Your task to perform on an android device: move a message to another label in the gmail app Image 0: 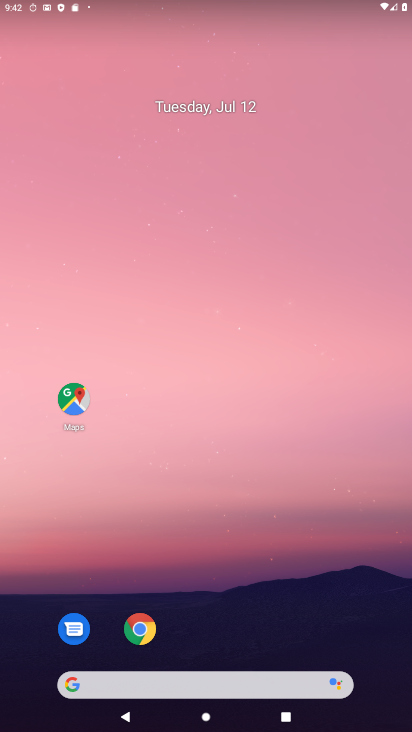
Step 0: drag from (215, 609) to (235, 142)
Your task to perform on an android device: move a message to another label in the gmail app Image 1: 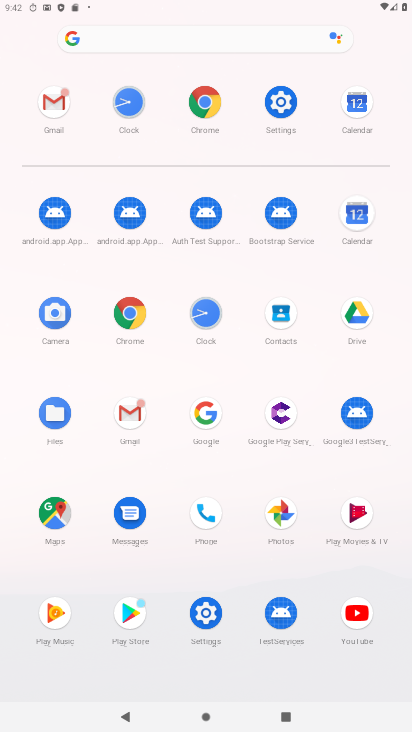
Step 1: click (112, 397)
Your task to perform on an android device: move a message to another label in the gmail app Image 2: 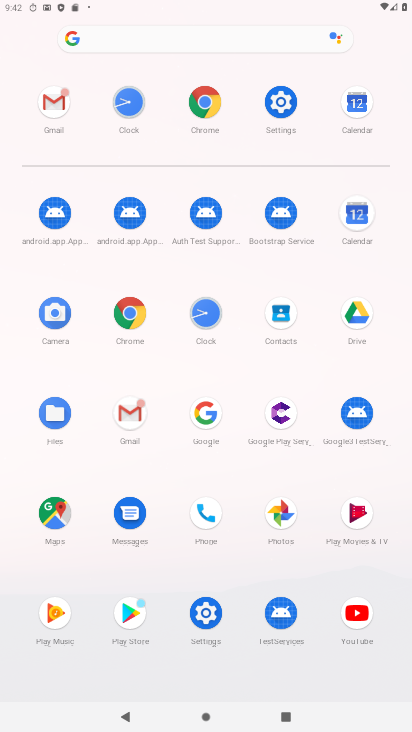
Step 2: click (126, 407)
Your task to perform on an android device: move a message to another label in the gmail app Image 3: 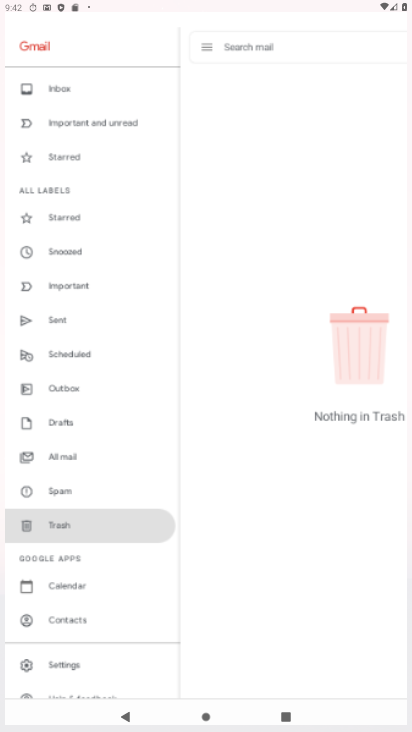
Step 3: click (127, 409)
Your task to perform on an android device: move a message to another label in the gmail app Image 4: 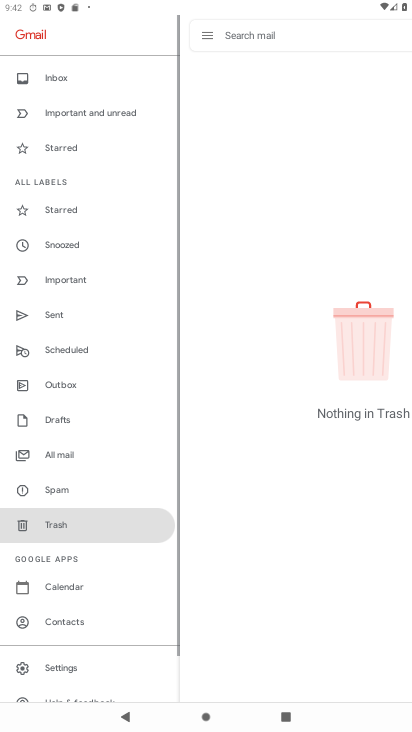
Step 4: click (127, 409)
Your task to perform on an android device: move a message to another label in the gmail app Image 5: 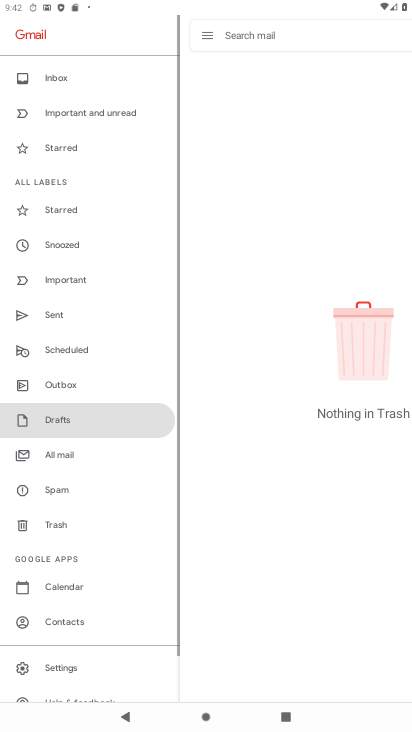
Step 5: click (127, 409)
Your task to perform on an android device: move a message to another label in the gmail app Image 6: 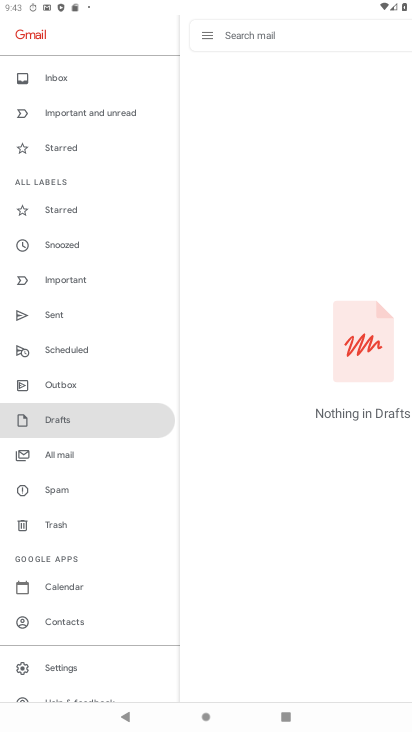
Step 6: click (56, 450)
Your task to perform on an android device: move a message to another label in the gmail app Image 7: 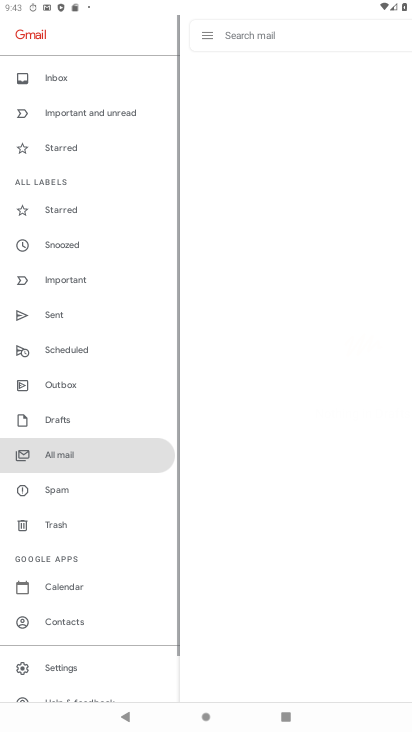
Step 7: click (56, 450)
Your task to perform on an android device: move a message to another label in the gmail app Image 8: 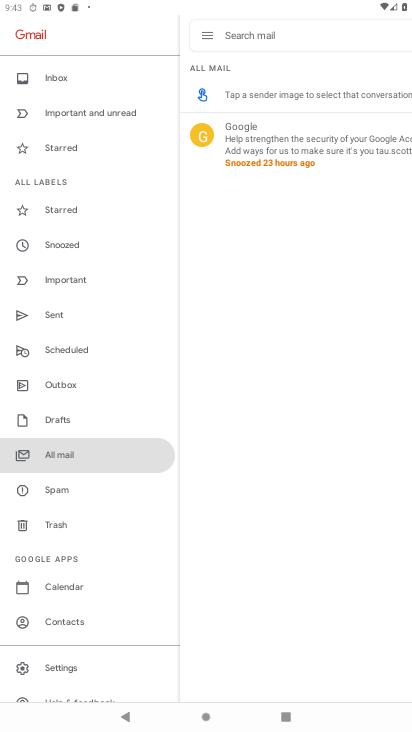
Step 8: click (267, 150)
Your task to perform on an android device: move a message to another label in the gmail app Image 9: 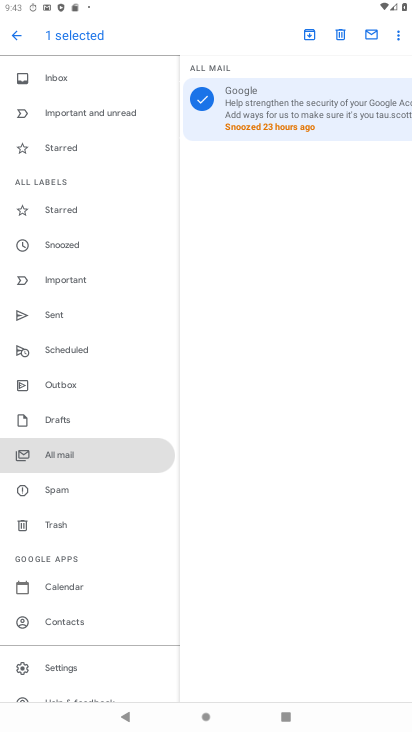
Step 9: click (393, 35)
Your task to perform on an android device: move a message to another label in the gmail app Image 10: 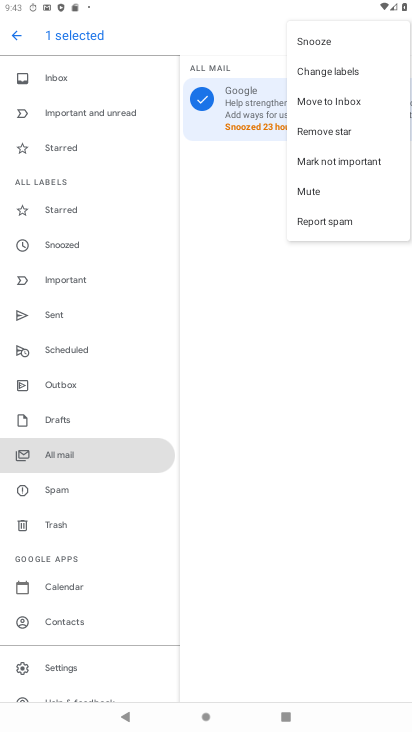
Step 10: click (332, 71)
Your task to perform on an android device: move a message to another label in the gmail app Image 11: 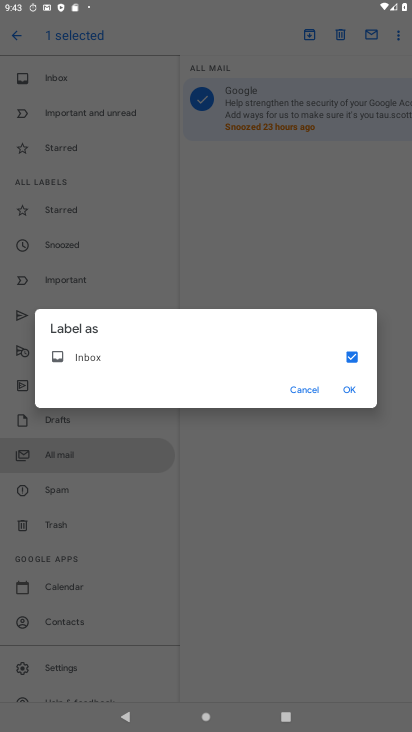
Step 11: click (304, 389)
Your task to perform on an android device: move a message to another label in the gmail app Image 12: 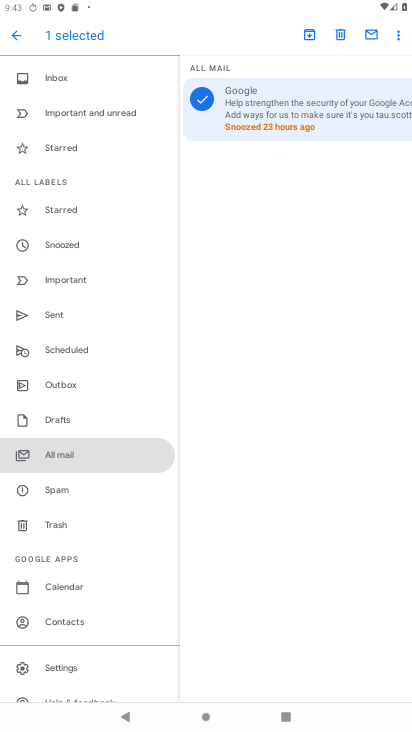
Step 12: task complete